Your task to perform on an android device: open a new tab in the chrome app Image 0: 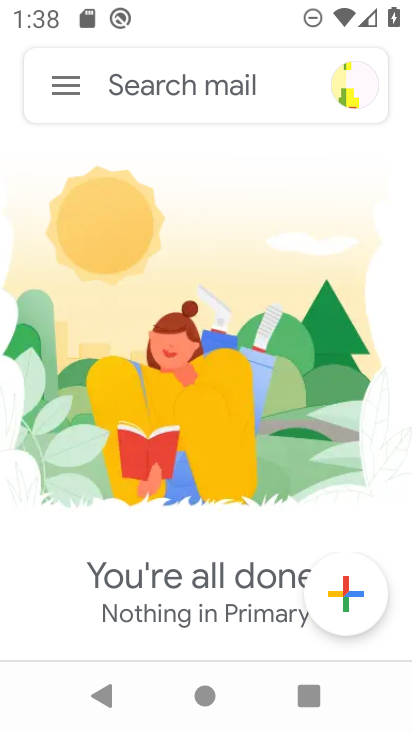
Step 0: press home button
Your task to perform on an android device: open a new tab in the chrome app Image 1: 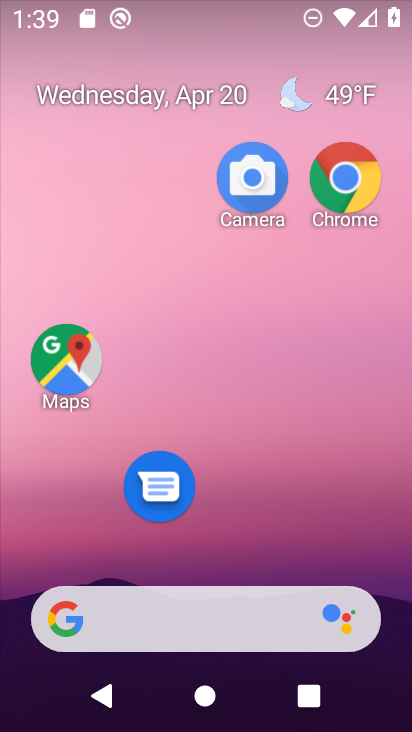
Step 1: drag from (250, 666) to (220, 307)
Your task to perform on an android device: open a new tab in the chrome app Image 2: 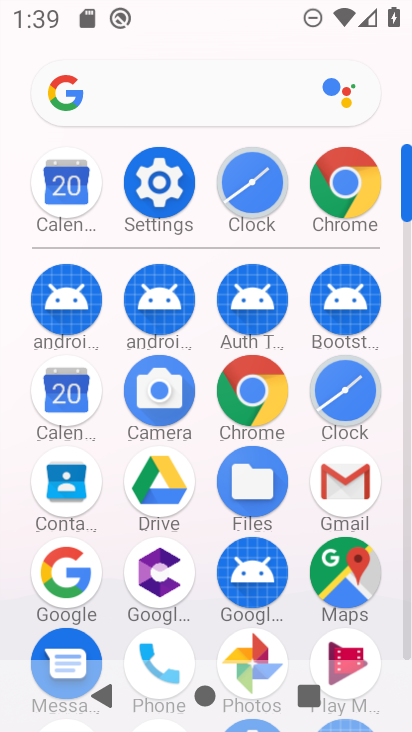
Step 2: click (338, 195)
Your task to perform on an android device: open a new tab in the chrome app Image 3: 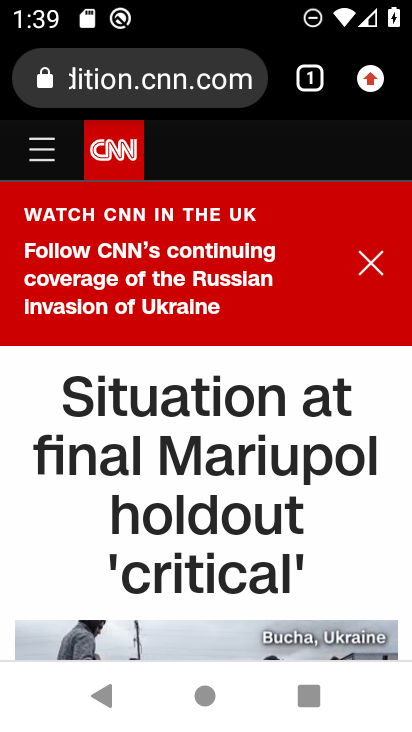
Step 3: click (379, 79)
Your task to perform on an android device: open a new tab in the chrome app Image 4: 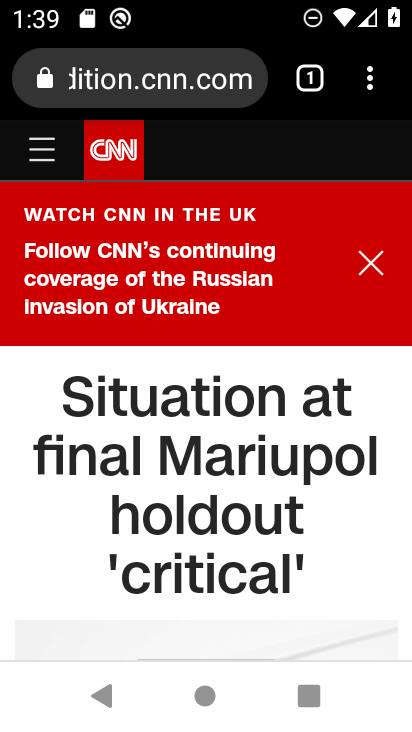
Step 4: click (365, 83)
Your task to perform on an android device: open a new tab in the chrome app Image 5: 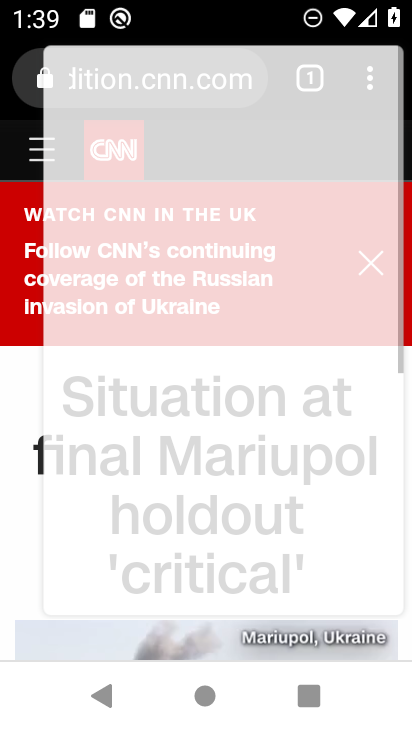
Step 5: click (363, 82)
Your task to perform on an android device: open a new tab in the chrome app Image 6: 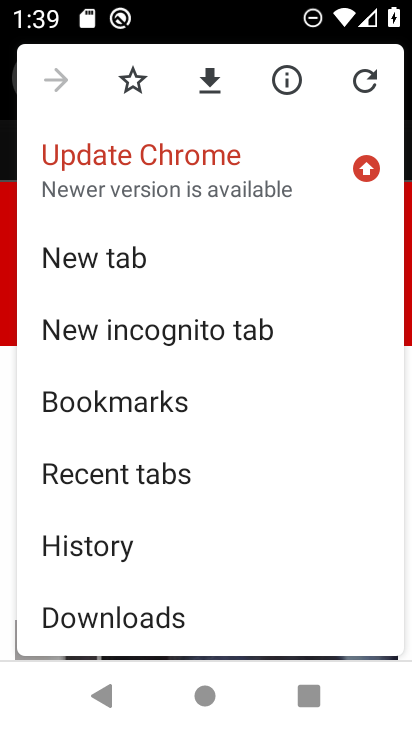
Step 6: click (109, 251)
Your task to perform on an android device: open a new tab in the chrome app Image 7: 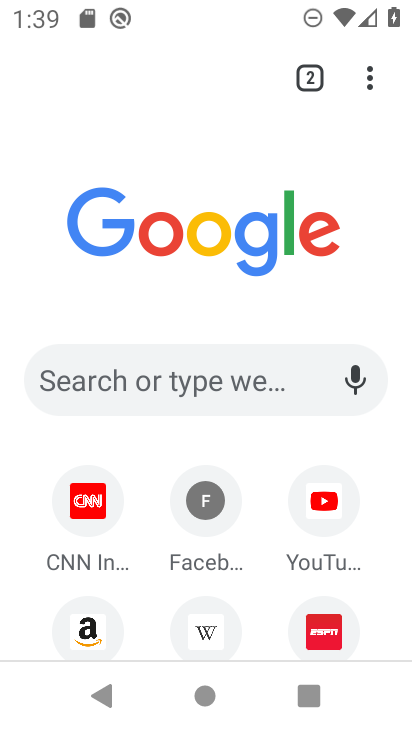
Step 7: task complete